Your task to perform on an android device: add a contact in the contacts app Image 0: 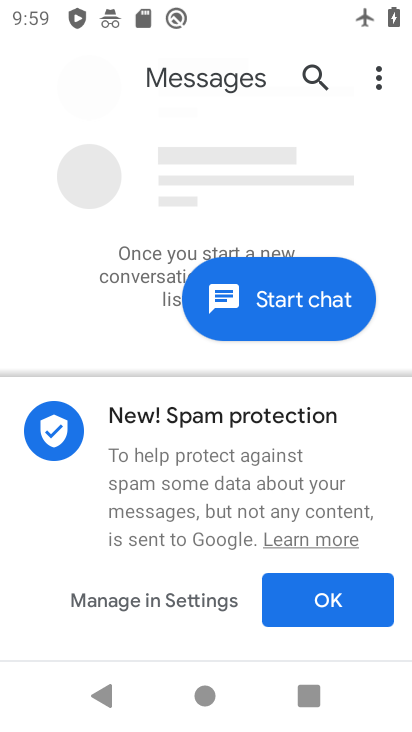
Step 0: press home button
Your task to perform on an android device: add a contact in the contacts app Image 1: 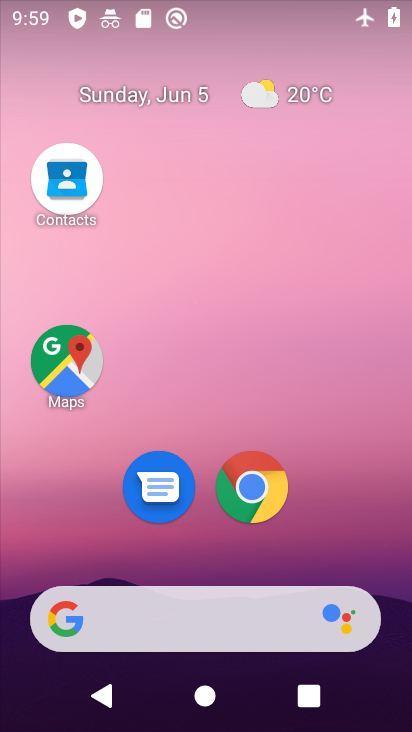
Step 1: drag from (339, 609) to (372, 271)
Your task to perform on an android device: add a contact in the contacts app Image 2: 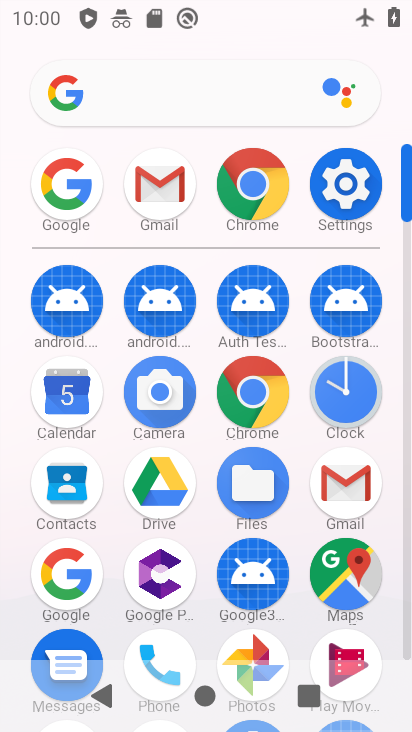
Step 2: drag from (94, 535) to (126, 372)
Your task to perform on an android device: add a contact in the contacts app Image 3: 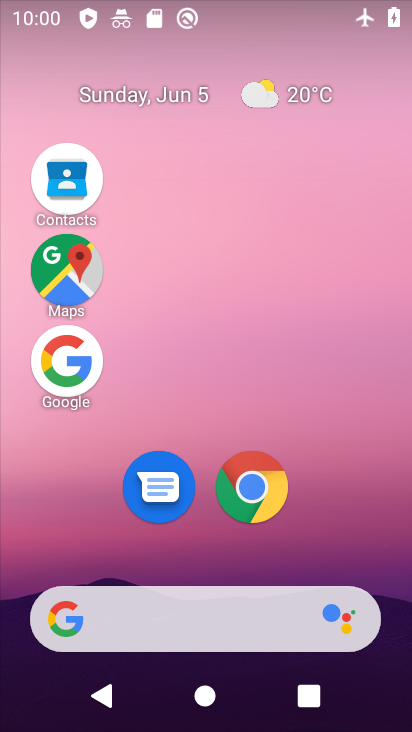
Step 3: drag from (152, 635) to (172, 407)
Your task to perform on an android device: add a contact in the contacts app Image 4: 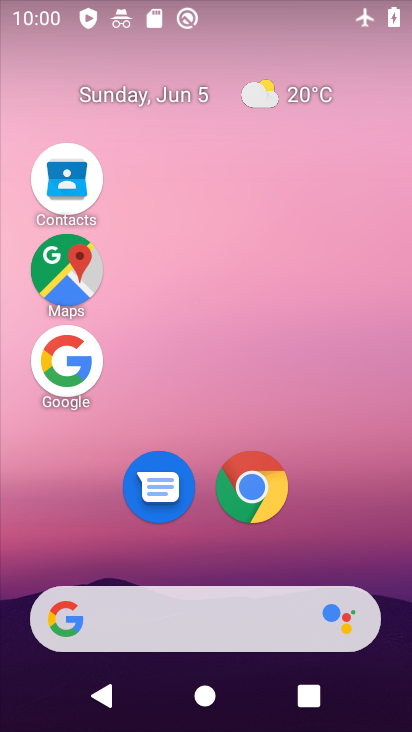
Step 4: drag from (151, 610) to (232, 248)
Your task to perform on an android device: add a contact in the contacts app Image 5: 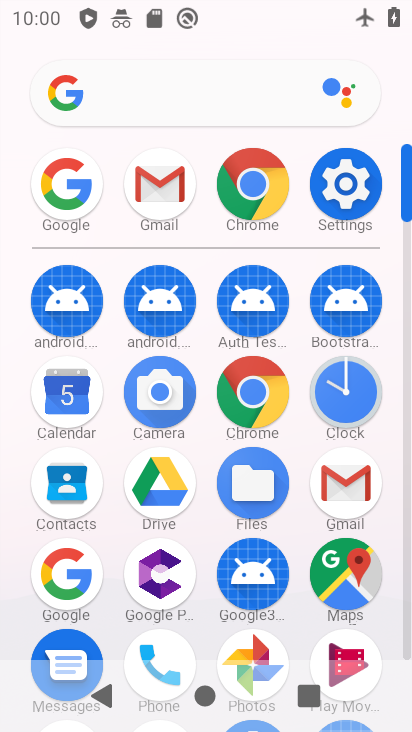
Step 5: click (89, 493)
Your task to perform on an android device: add a contact in the contacts app Image 6: 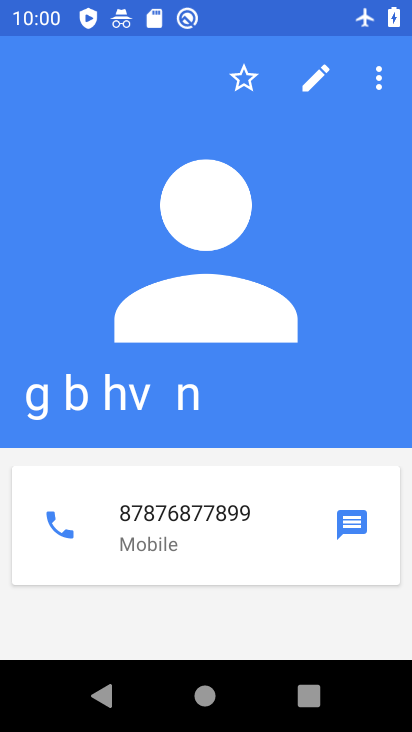
Step 6: press back button
Your task to perform on an android device: add a contact in the contacts app Image 7: 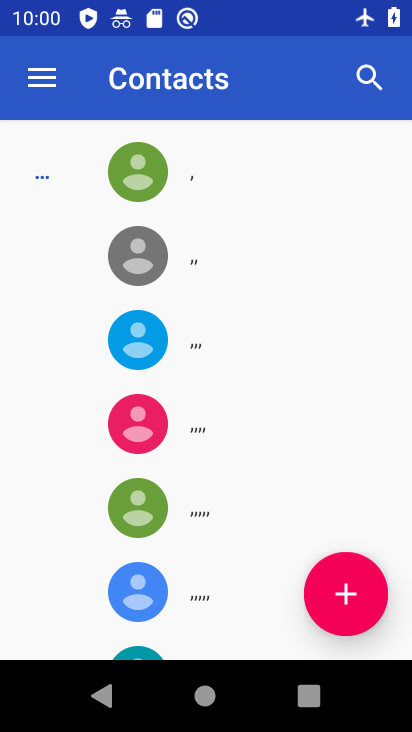
Step 7: click (342, 600)
Your task to perform on an android device: add a contact in the contacts app Image 8: 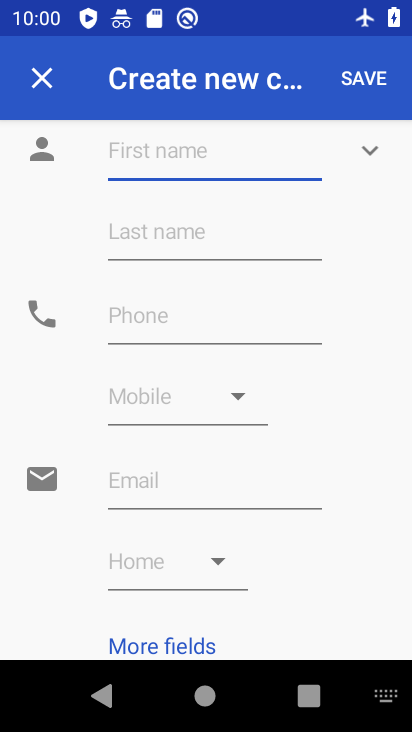
Step 8: type "yhuutguy"
Your task to perform on an android device: add a contact in the contacts app Image 9: 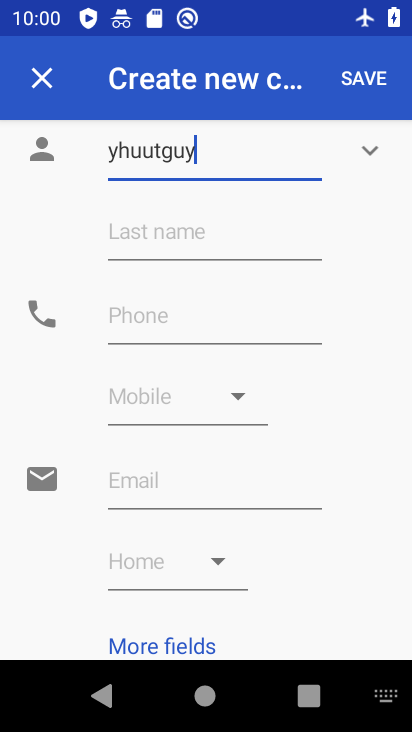
Step 9: click (200, 327)
Your task to perform on an android device: add a contact in the contacts app Image 10: 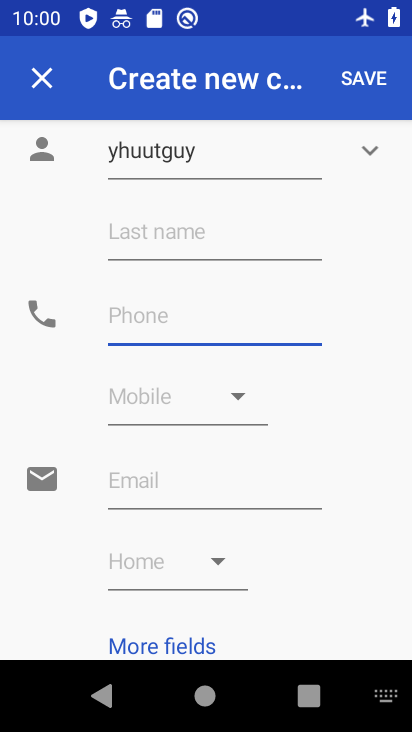
Step 10: type "987867957565"
Your task to perform on an android device: add a contact in the contacts app Image 11: 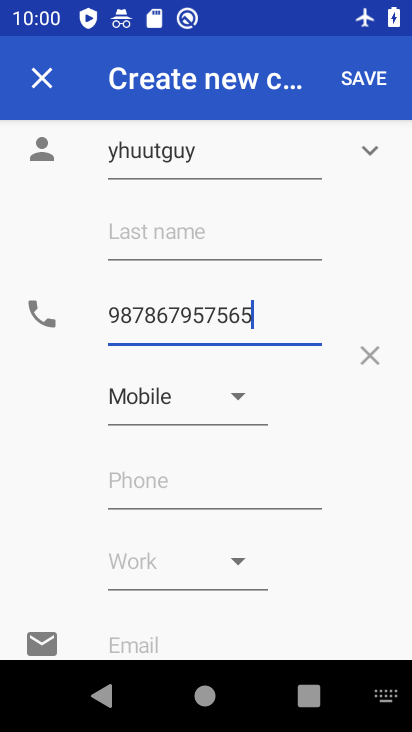
Step 11: click (350, 76)
Your task to perform on an android device: add a contact in the contacts app Image 12: 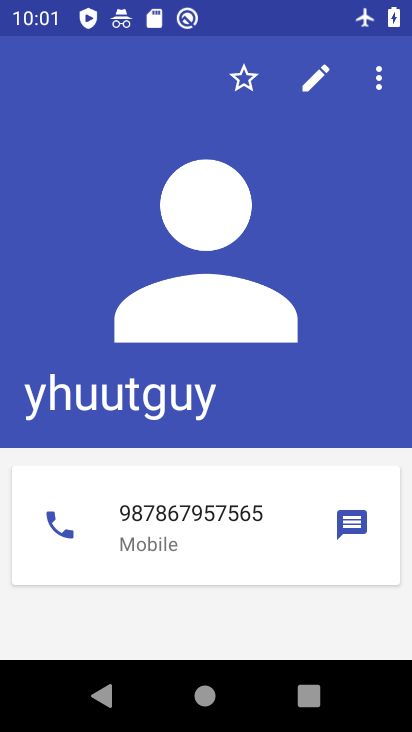
Step 12: task complete